Your task to perform on an android device: set the stopwatch Image 0: 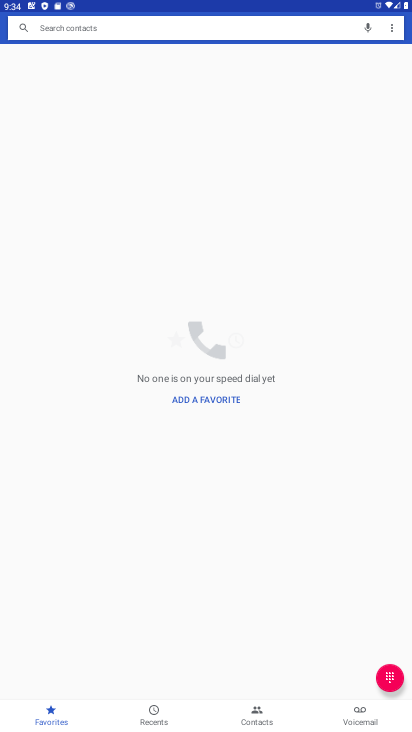
Step 0: press home button
Your task to perform on an android device: set the stopwatch Image 1: 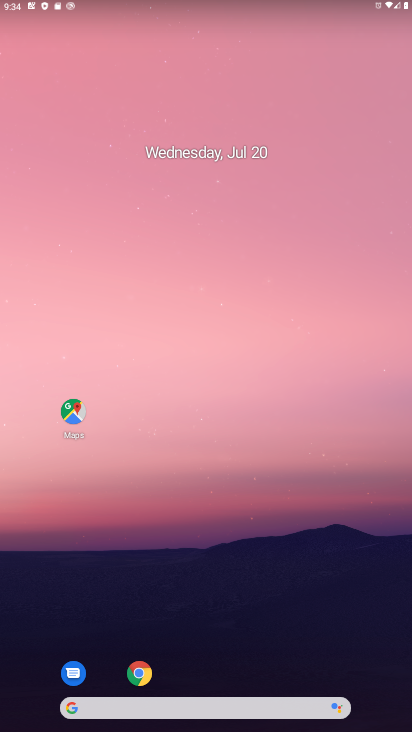
Step 1: drag from (227, 714) to (221, 190)
Your task to perform on an android device: set the stopwatch Image 2: 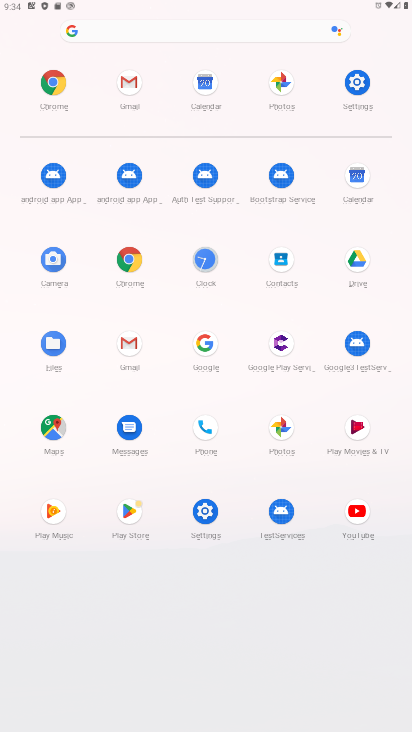
Step 2: click (207, 260)
Your task to perform on an android device: set the stopwatch Image 3: 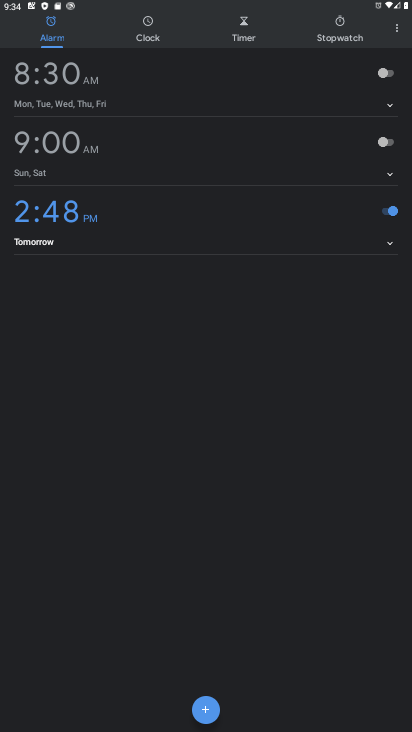
Step 3: click (345, 28)
Your task to perform on an android device: set the stopwatch Image 4: 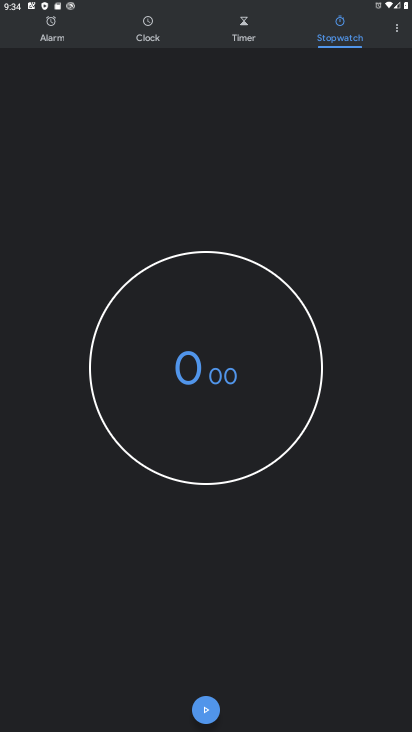
Step 4: click (197, 402)
Your task to perform on an android device: set the stopwatch Image 5: 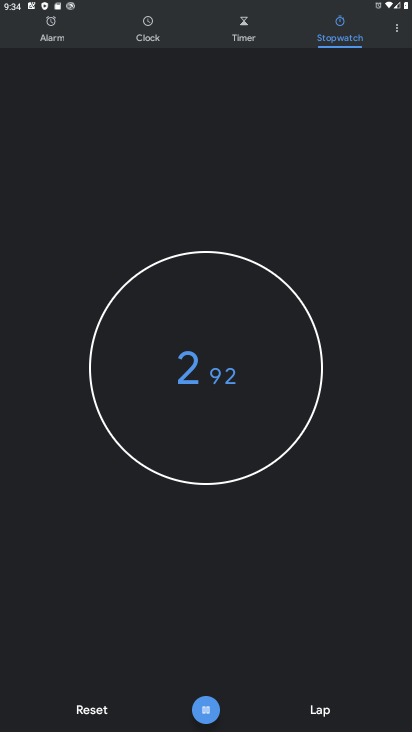
Step 5: task complete